Your task to perform on an android device: turn on javascript in the chrome app Image 0: 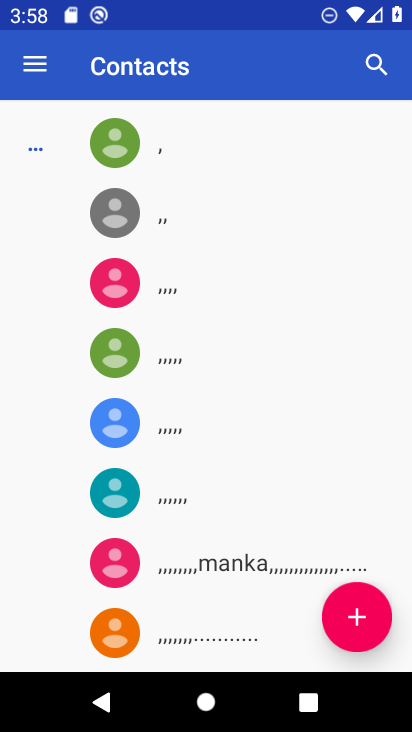
Step 0: press home button
Your task to perform on an android device: turn on javascript in the chrome app Image 1: 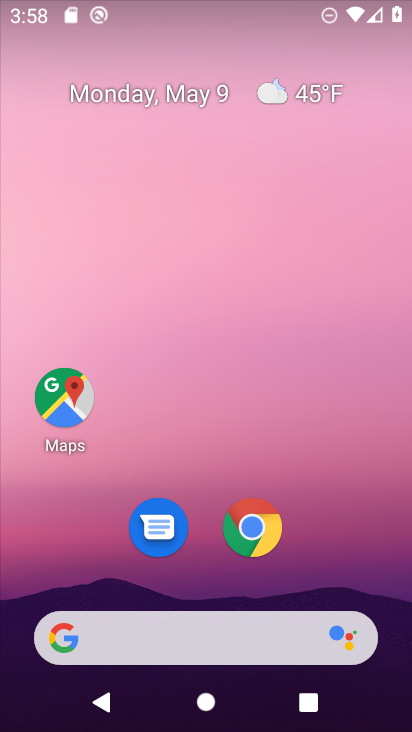
Step 1: drag from (376, 563) to (324, 175)
Your task to perform on an android device: turn on javascript in the chrome app Image 2: 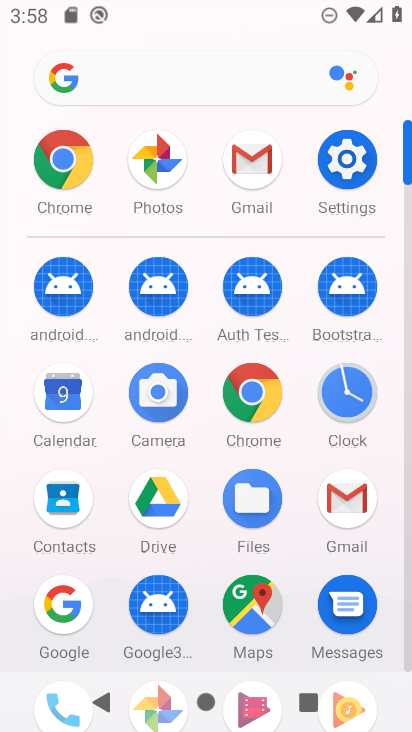
Step 2: click (67, 141)
Your task to perform on an android device: turn on javascript in the chrome app Image 3: 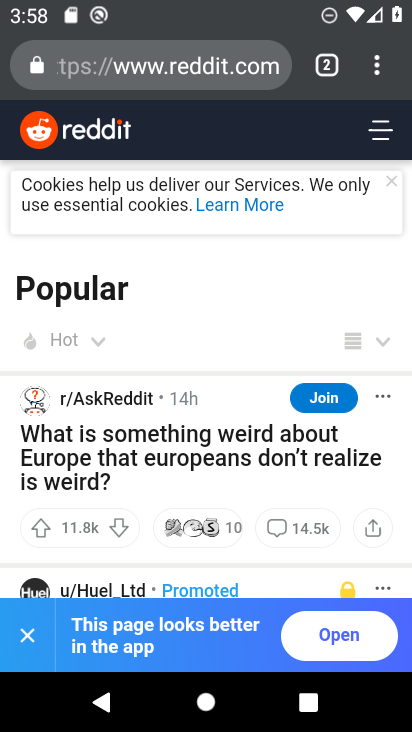
Step 3: drag from (381, 99) to (272, 576)
Your task to perform on an android device: turn on javascript in the chrome app Image 4: 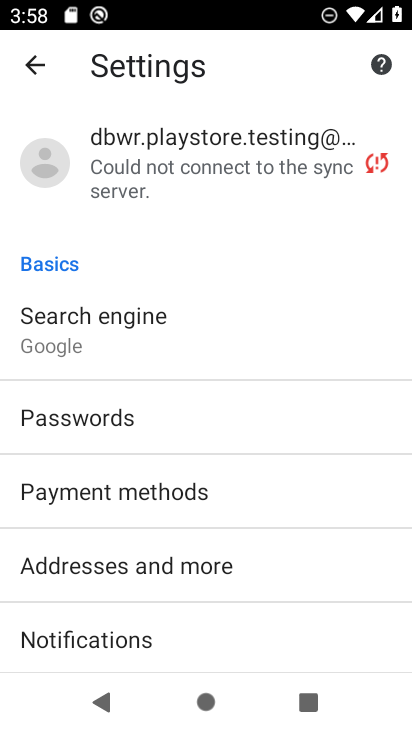
Step 4: drag from (294, 662) to (269, 96)
Your task to perform on an android device: turn on javascript in the chrome app Image 5: 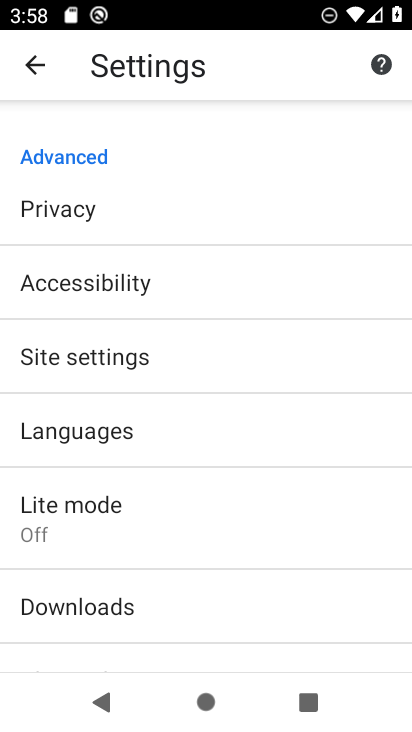
Step 5: click (226, 358)
Your task to perform on an android device: turn on javascript in the chrome app Image 6: 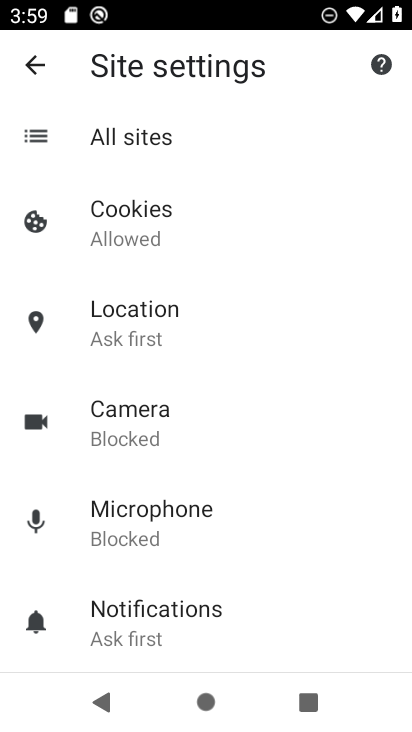
Step 6: drag from (228, 623) to (195, 77)
Your task to perform on an android device: turn on javascript in the chrome app Image 7: 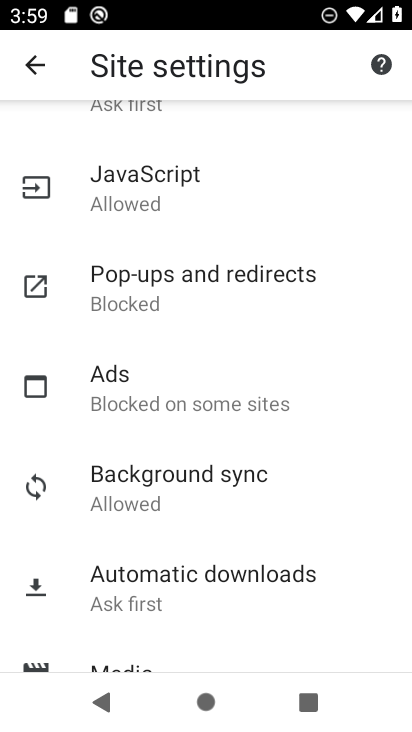
Step 7: click (216, 163)
Your task to perform on an android device: turn on javascript in the chrome app Image 8: 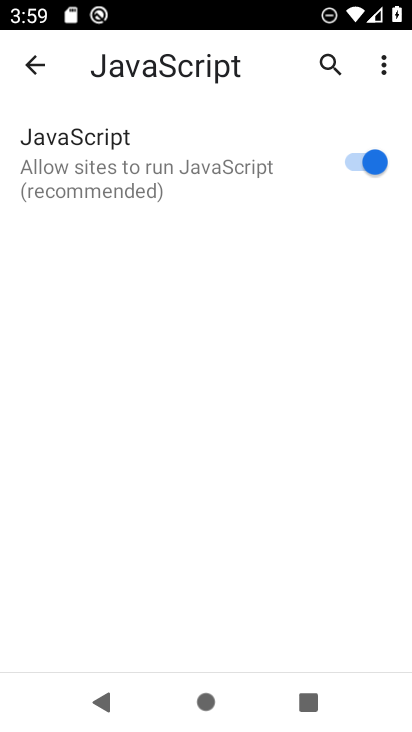
Step 8: task complete